Your task to perform on an android device: set the stopwatch Image 0: 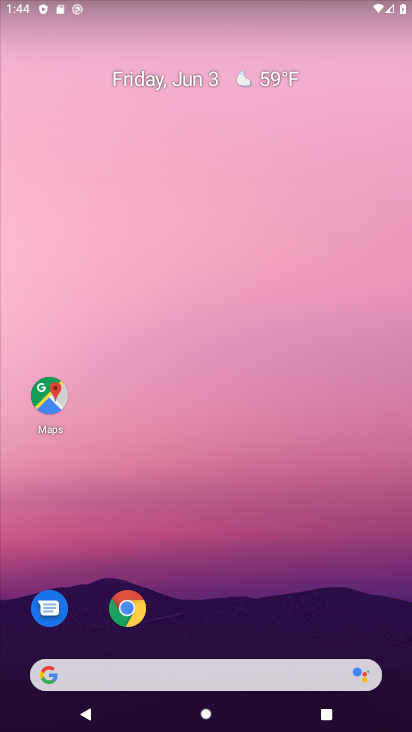
Step 0: drag from (185, 666) to (0, 163)
Your task to perform on an android device: set the stopwatch Image 1: 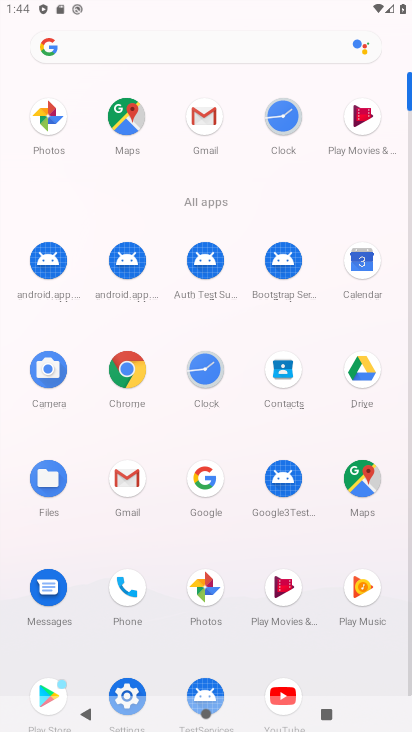
Step 1: click (205, 384)
Your task to perform on an android device: set the stopwatch Image 2: 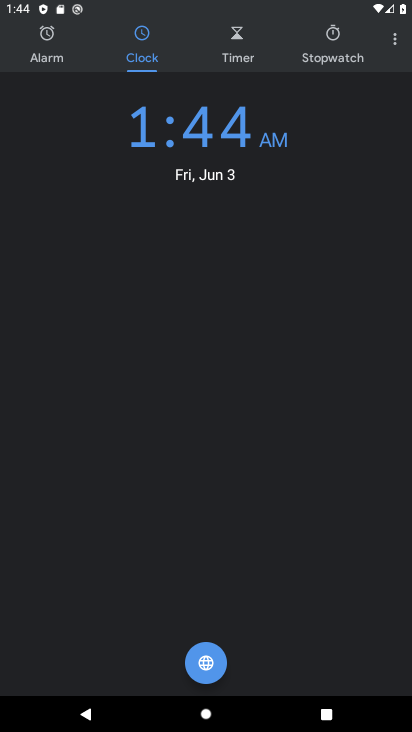
Step 2: click (327, 52)
Your task to perform on an android device: set the stopwatch Image 3: 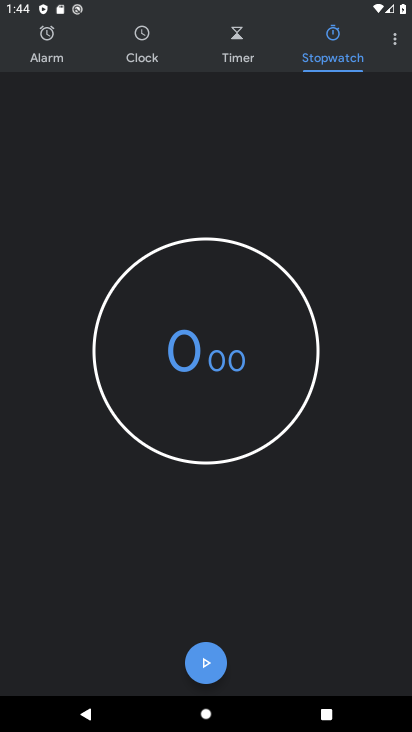
Step 3: click (208, 652)
Your task to perform on an android device: set the stopwatch Image 4: 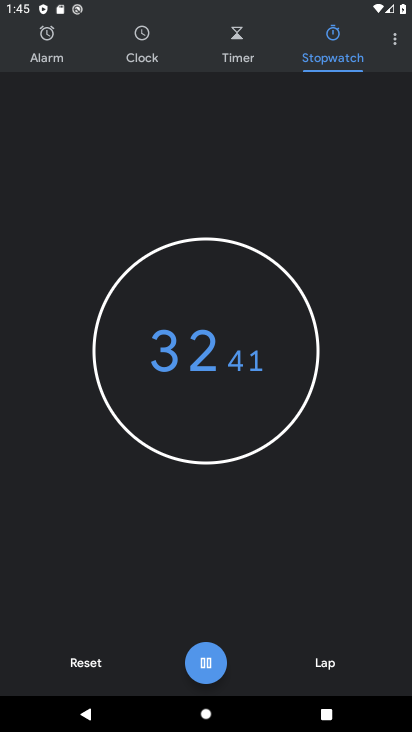
Step 4: task complete